Your task to perform on an android device: Go to Google maps Image 0: 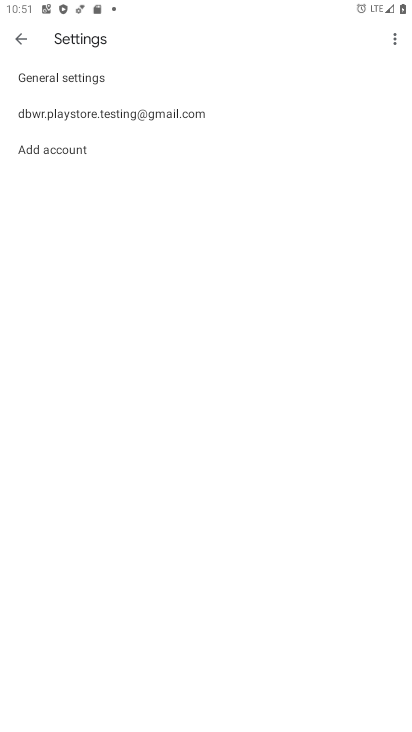
Step 0: press home button
Your task to perform on an android device: Go to Google maps Image 1: 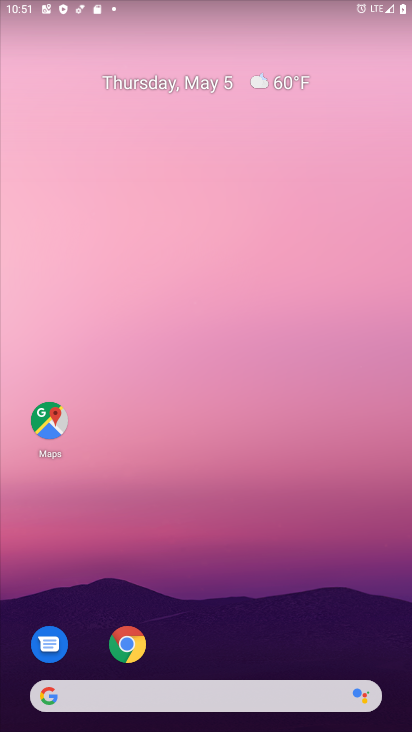
Step 1: click (55, 426)
Your task to perform on an android device: Go to Google maps Image 2: 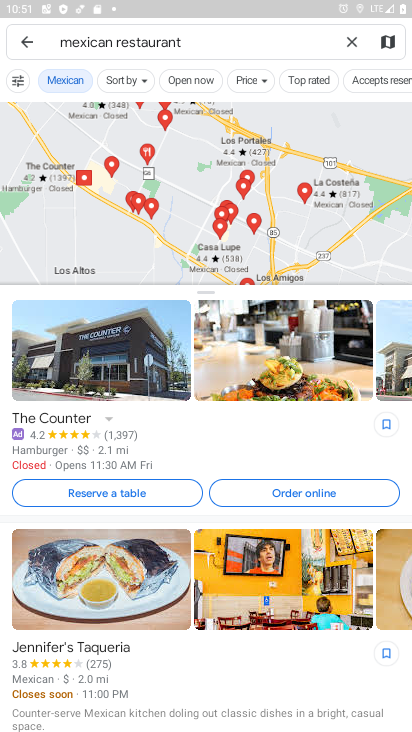
Step 2: task complete